Your task to perform on an android device: change the clock display to digital Image 0: 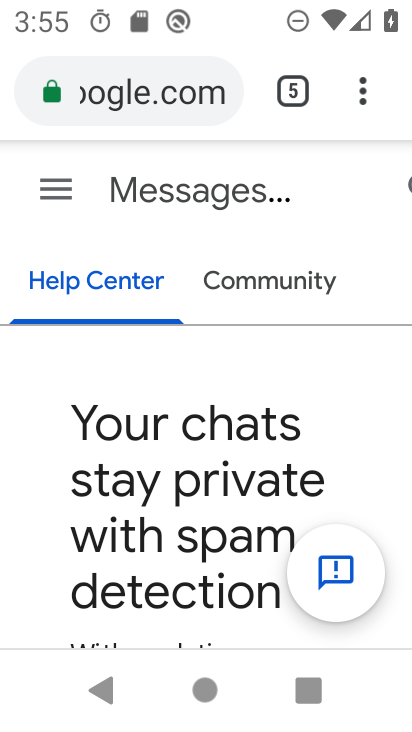
Step 0: press home button
Your task to perform on an android device: change the clock display to digital Image 1: 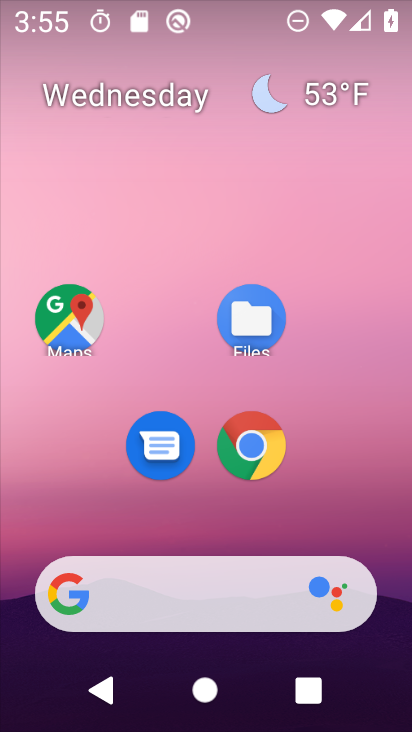
Step 1: drag from (307, 541) to (314, 110)
Your task to perform on an android device: change the clock display to digital Image 2: 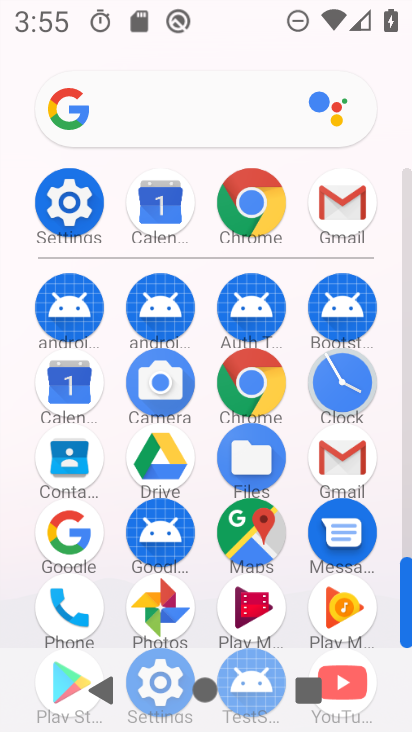
Step 2: click (359, 373)
Your task to perform on an android device: change the clock display to digital Image 3: 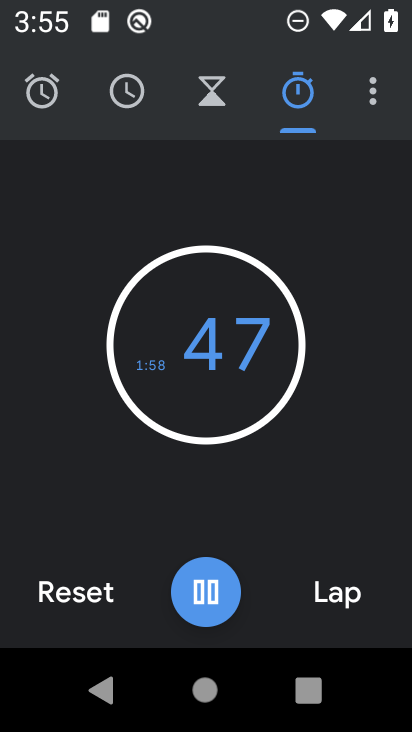
Step 3: click (374, 103)
Your task to perform on an android device: change the clock display to digital Image 4: 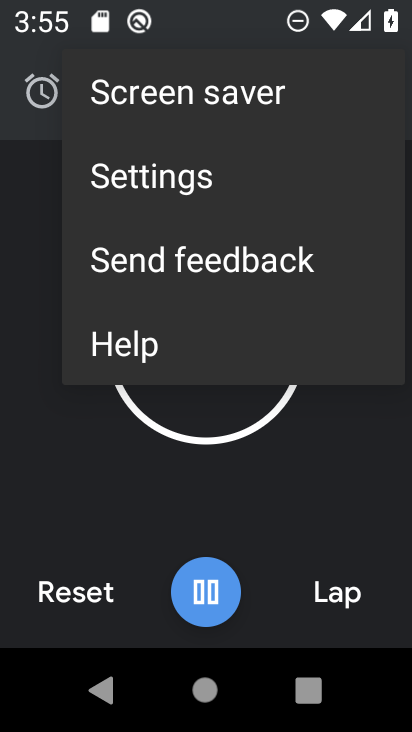
Step 4: click (232, 173)
Your task to perform on an android device: change the clock display to digital Image 5: 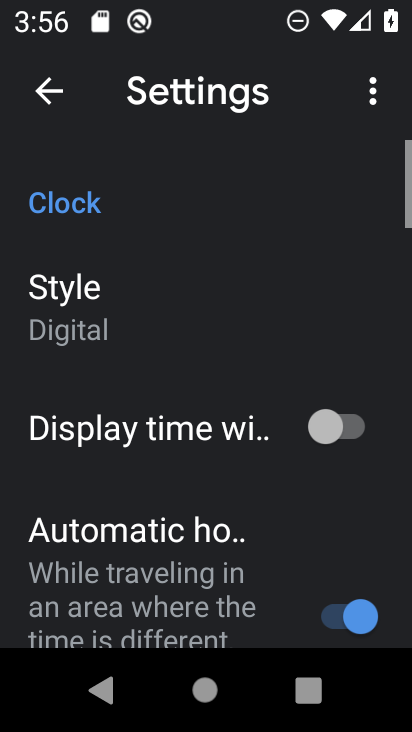
Step 5: click (131, 352)
Your task to perform on an android device: change the clock display to digital Image 6: 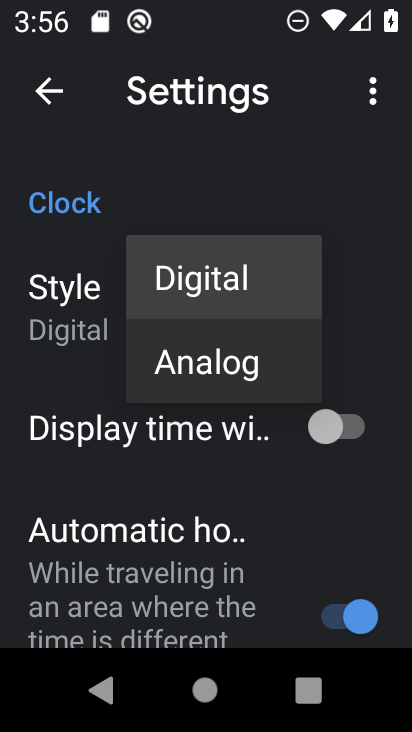
Step 6: click (319, 277)
Your task to perform on an android device: change the clock display to digital Image 7: 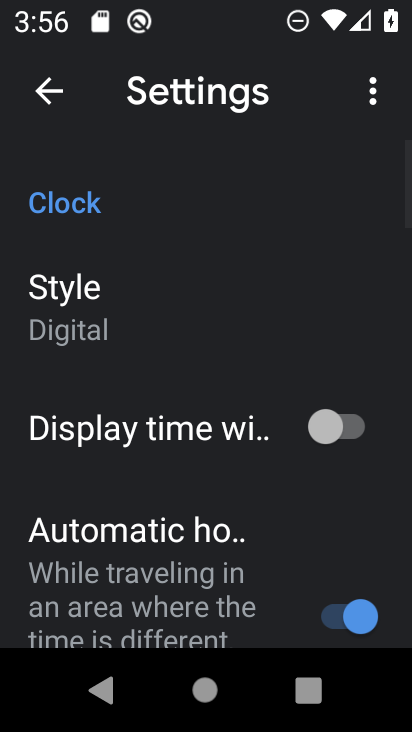
Step 7: task complete